Your task to perform on an android device: What's the news in Colombia? Image 0: 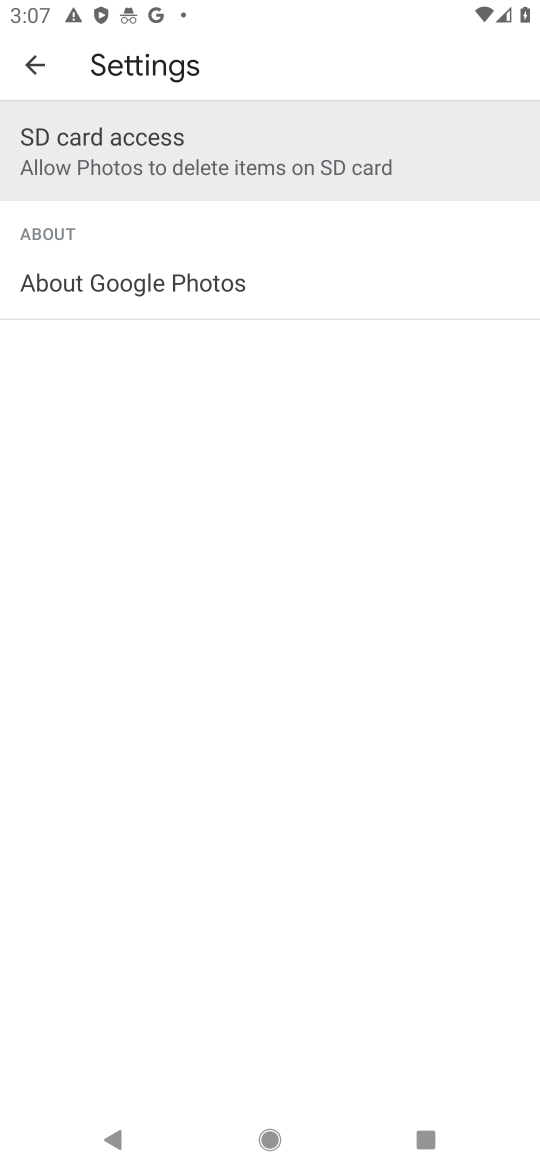
Step 0: press home button
Your task to perform on an android device: What's the news in Colombia? Image 1: 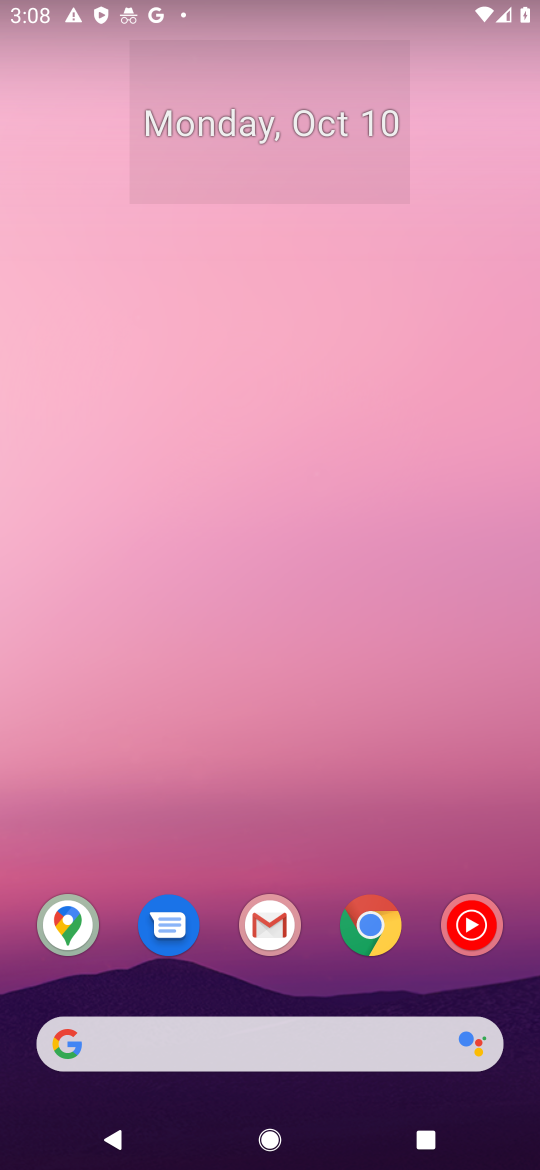
Step 1: click (395, 914)
Your task to perform on an android device: What's the news in Colombia? Image 2: 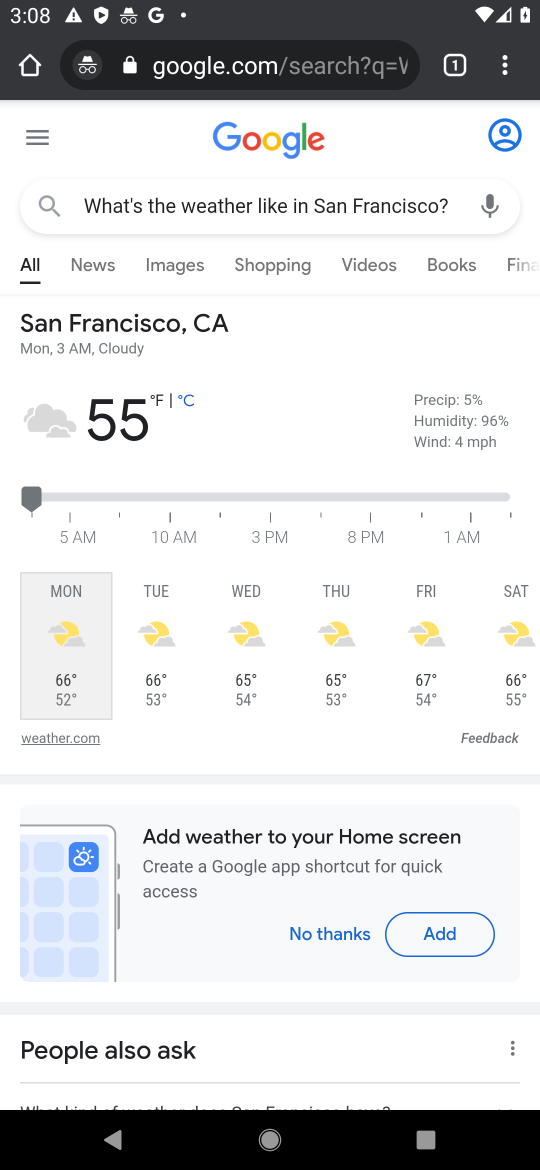
Step 2: click (361, 212)
Your task to perform on an android device: What's the news in Colombia? Image 3: 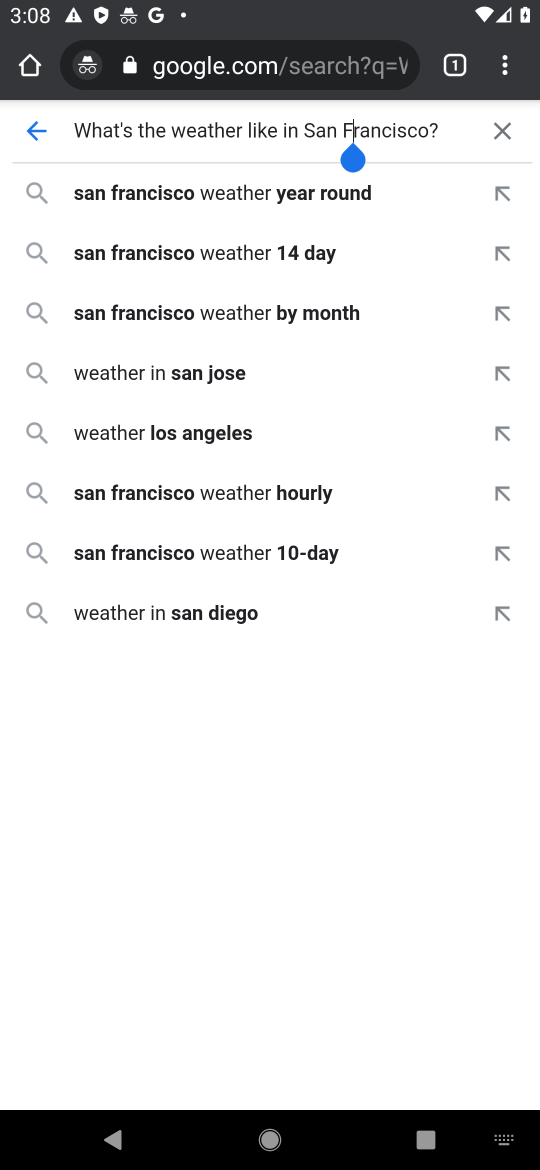
Step 3: click (502, 126)
Your task to perform on an android device: What's the news in Colombia? Image 4: 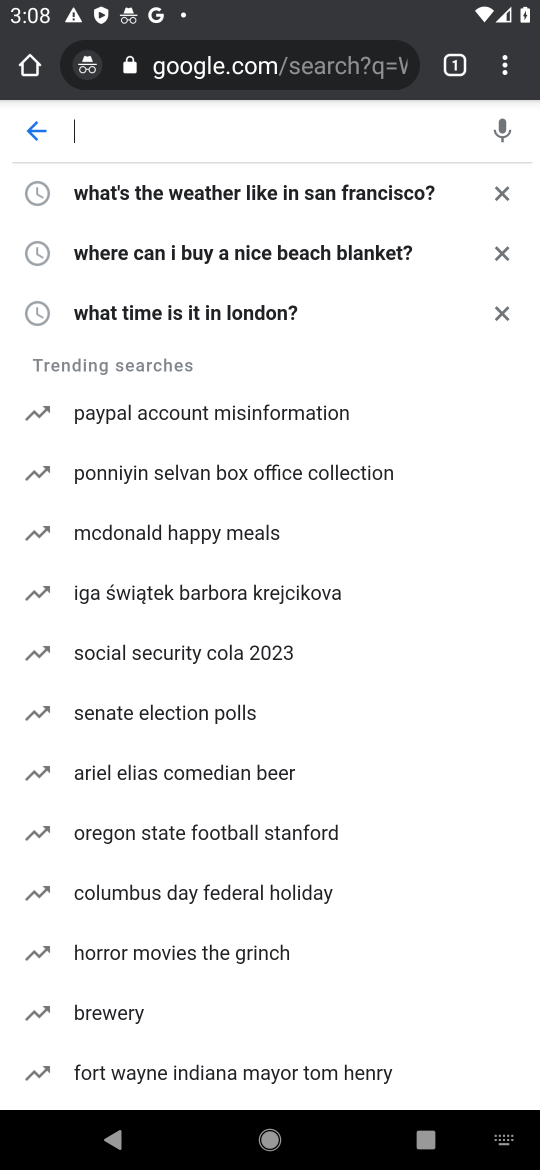
Step 4: type "What's the news in Colombia?"
Your task to perform on an android device: What's the news in Colombia? Image 5: 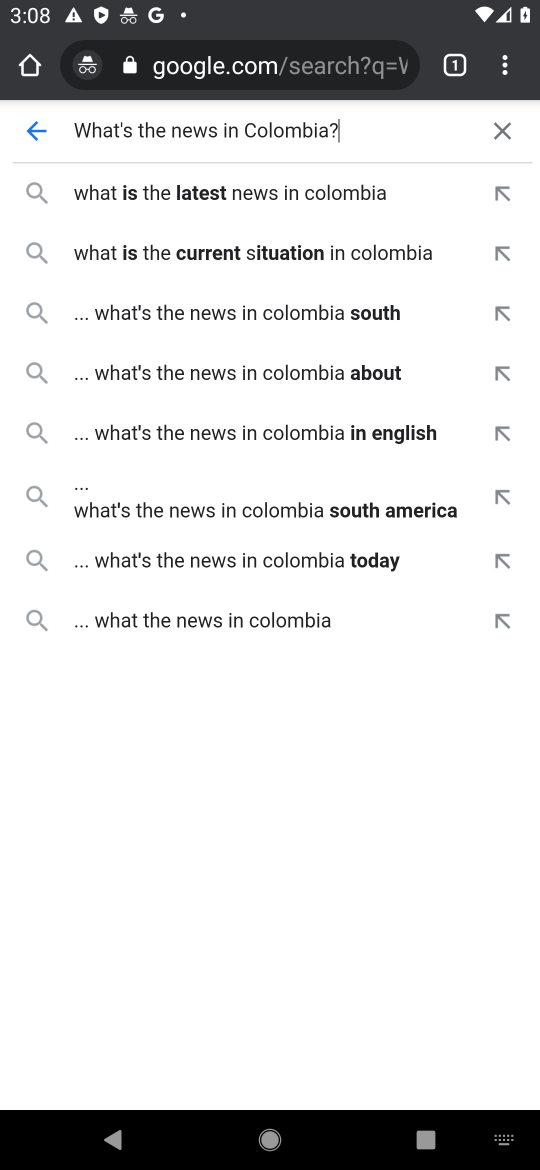
Step 5: press enter
Your task to perform on an android device: What's the news in Colombia? Image 6: 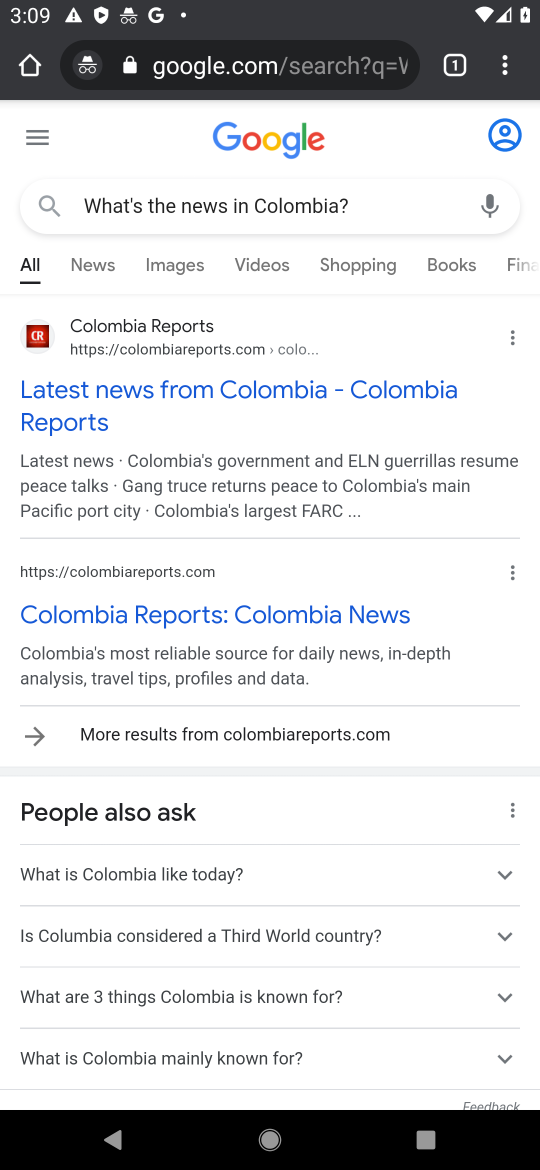
Step 6: click (89, 264)
Your task to perform on an android device: What's the news in Colombia? Image 7: 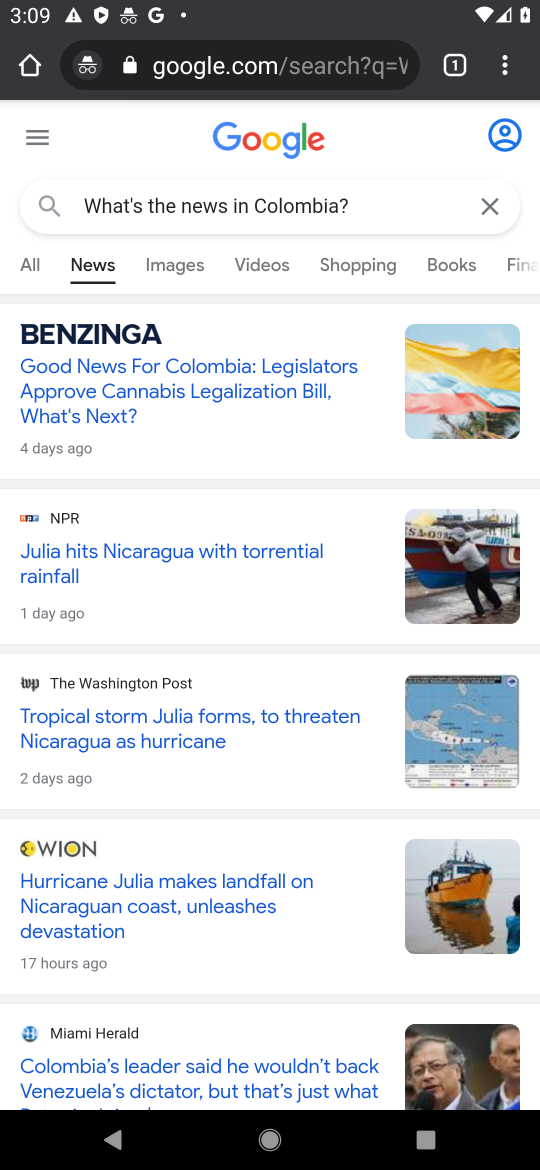
Step 7: task complete